Your task to perform on an android device: Go to battery settings Image 0: 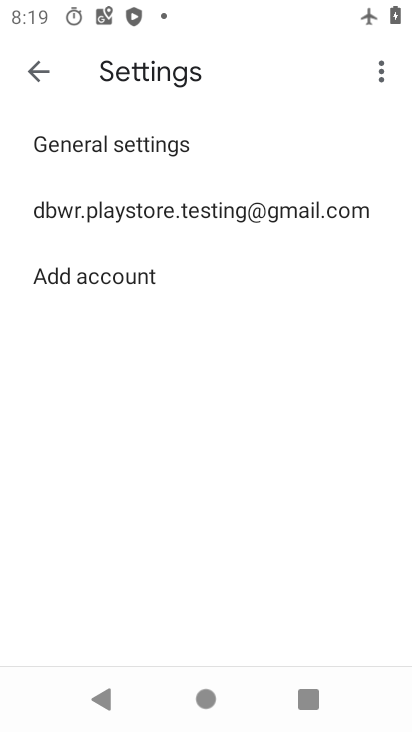
Step 0: drag from (282, 696) to (206, 222)
Your task to perform on an android device: Go to battery settings Image 1: 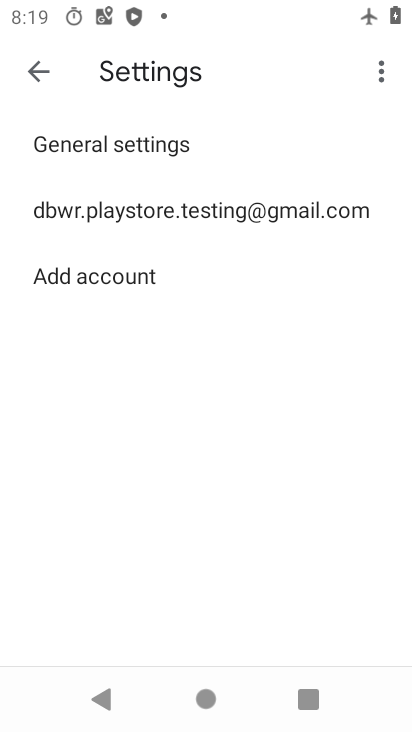
Step 1: press home button
Your task to perform on an android device: Go to battery settings Image 2: 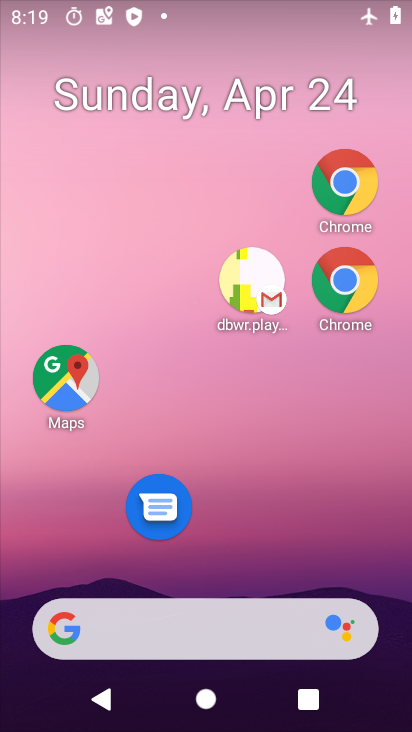
Step 2: drag from (247, 689) to (202, 118)
Your task to perform on an android device: Go to battery settings Image 3: 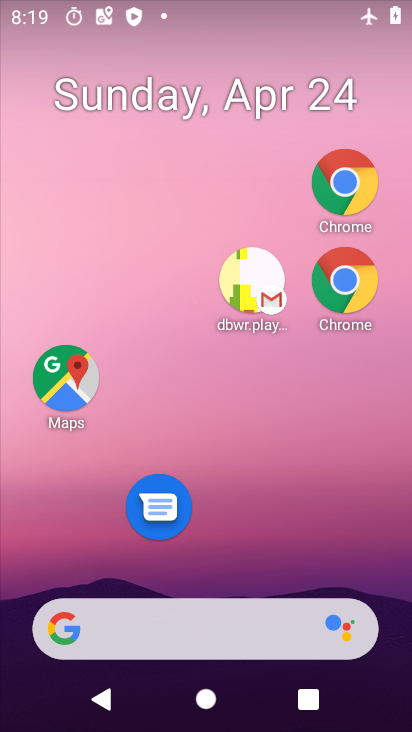
Step 3: drag from (258, 668) to (250, 89)
Your task to perform on an android device: Go to battery settings Image 4: 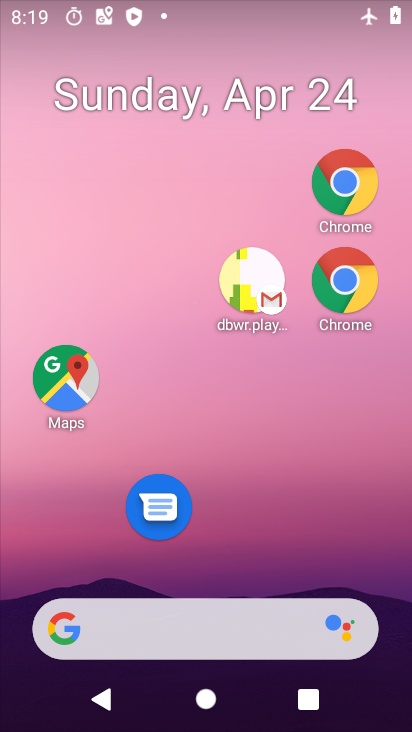
Step 4: drag from (251, 652) to (229, 140)
Your task to perform on an android device: Go to battery settings Image 5: 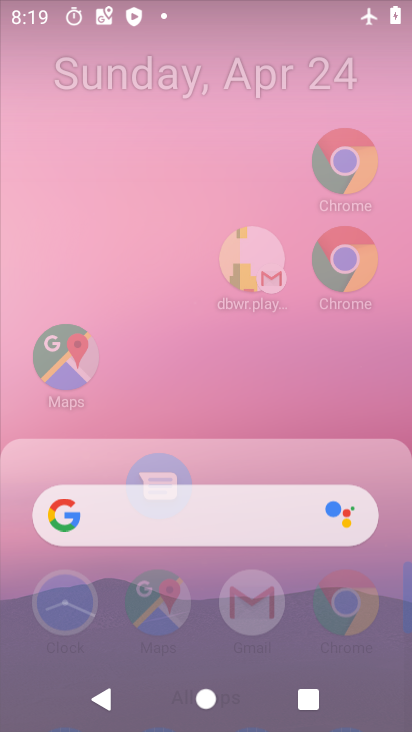
Step 5: drag from (186, 154) to (186, 41)
Your task to perform on an android device: Go to battery settings Image 6: 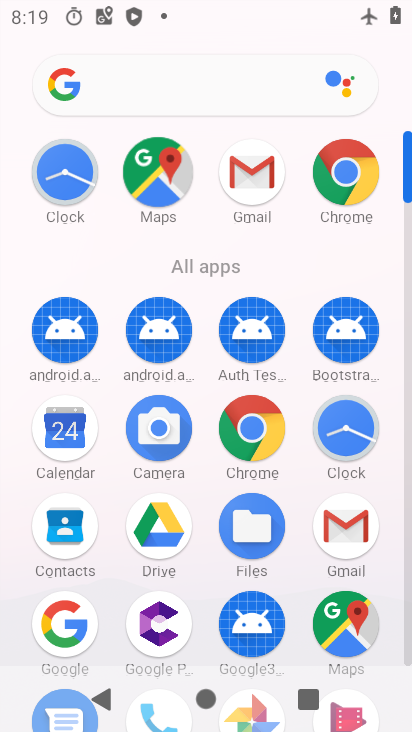
Step 6: drag from (187, 489) to (172, 79)
Your task to perform on an android device: Go to battery settings Image 7: 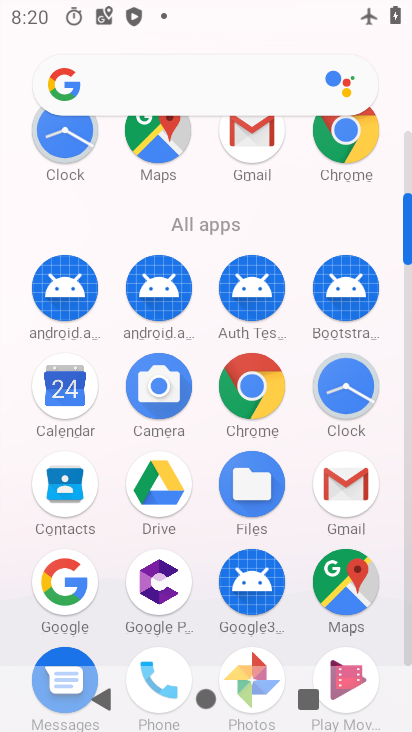
Step 7: drag from (208, 561) to (216, 105)
Your task to perform on an android device: Go to battery settings Image 8: 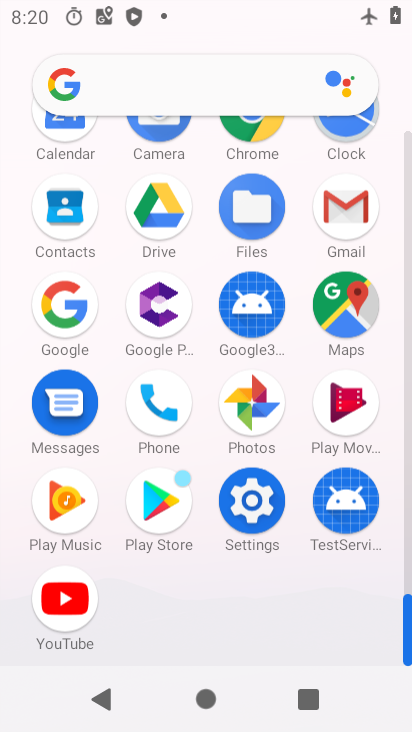
Step 8: drag from (133, 500) to (154, 79)
Your task to perform on an android device: Go to battery settings Image 9: 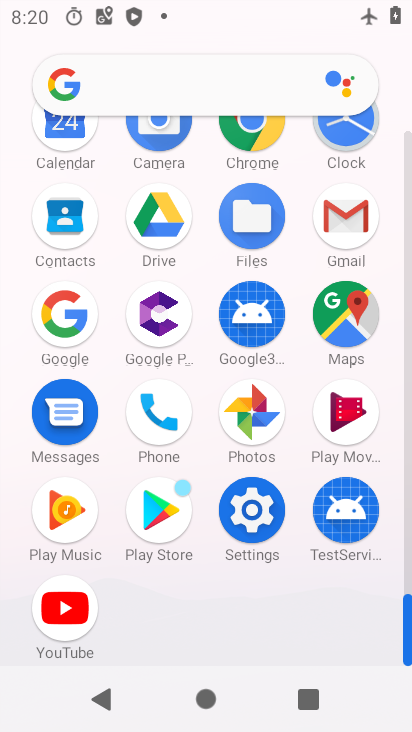
Step 9: click (262, 515)
Your task to perform on an android device: Go to battery settings Image 10: 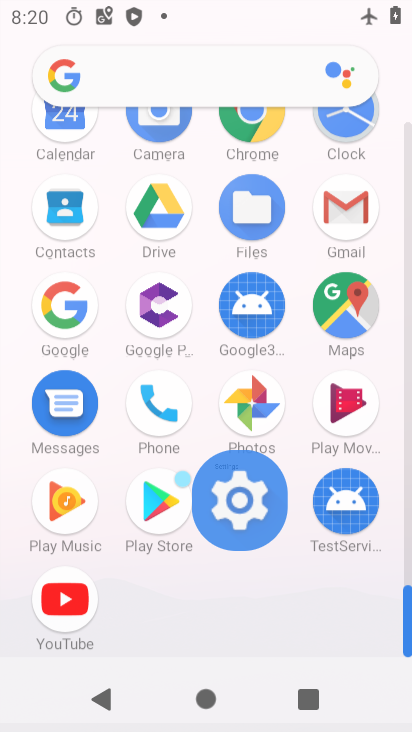
Step 10: click (262, 515)
Your task to perform on an android device: Go to battery settings Image 11: 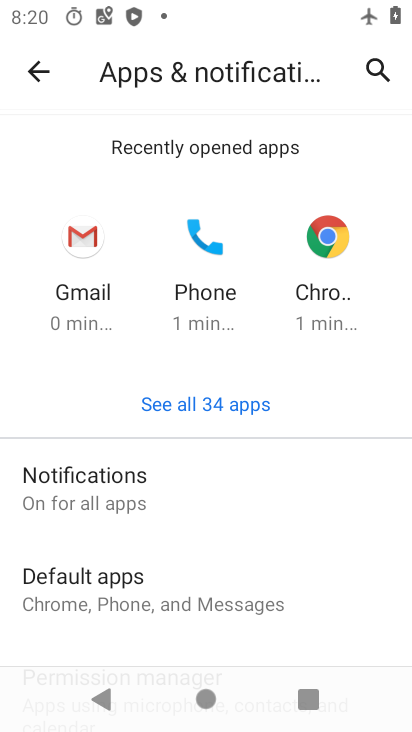
Step 11: drag from (182, 487) to (217, 218)
Your task to perform on an android device: Go to battery settings Image 12: 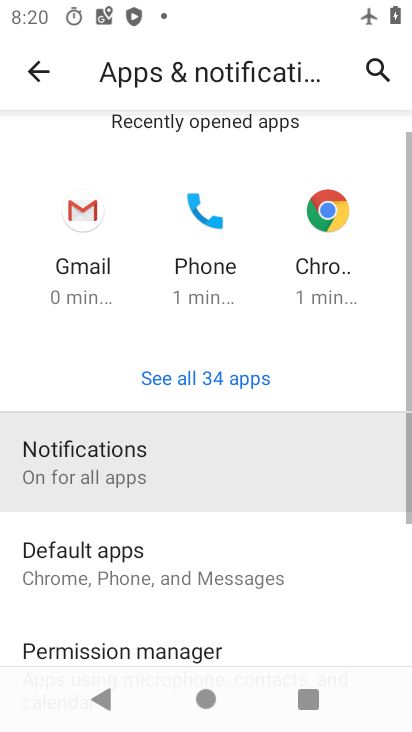
Step 12: drag from (158, 379) to (158, 171)
Your task to perform on an android device: Go to battery settings Image 13: 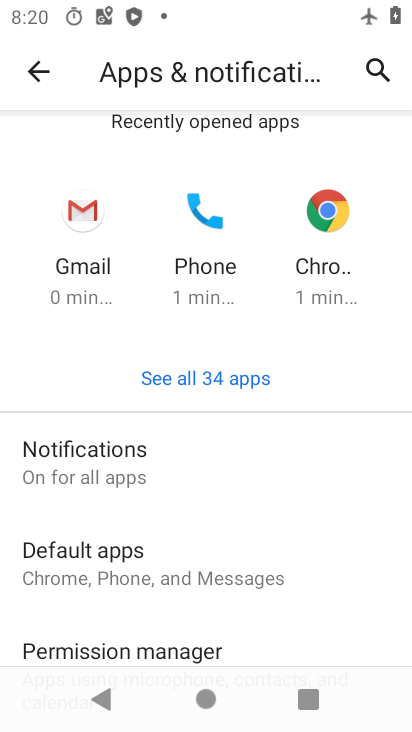
Step 13: drag from (180, 528) to (154, 191)
Your task to perform on an android device: Go to battery settings Image 14: 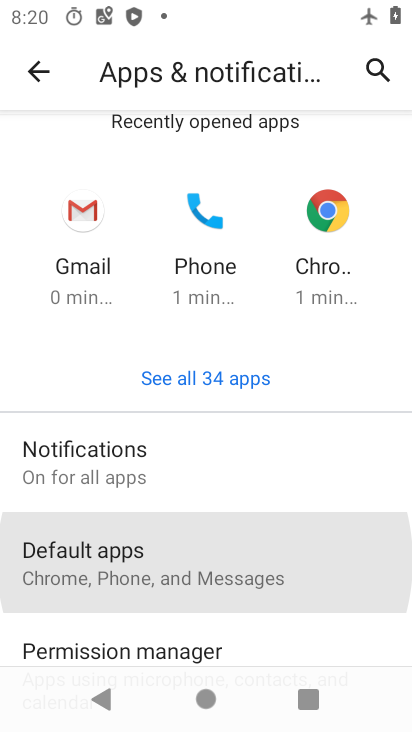
Step 14: drag from (174, 393) to (141, 86)
Your task to perform on an android device: Go to battery settings Image 15: 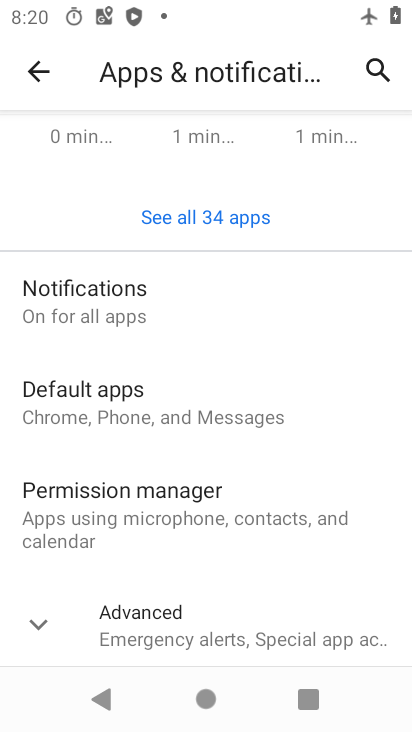
Step 15: click (46, 66)
Your task to perform on an android device: Go to battery settings Image 16: 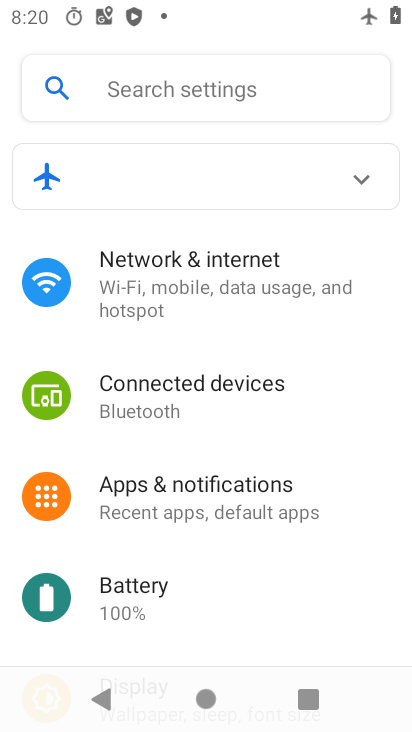
Step 16: drag from (185, 528) to (153, 235)
Your task to perform on an android device: Go to battery settings Image 17: 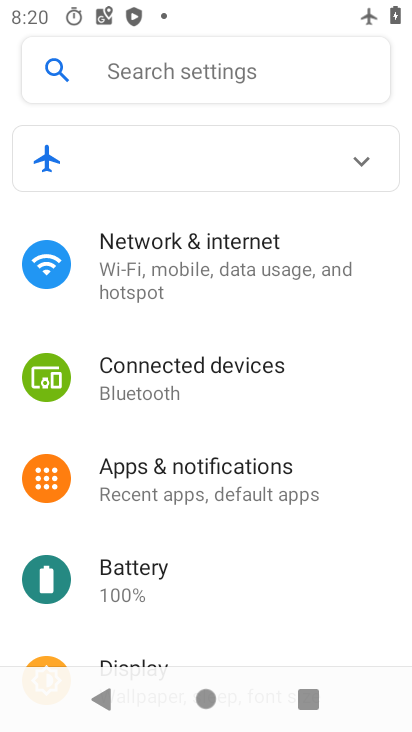
Step 17: click (134, 574)
Your task to perform on an android device: Go to battery settings Image 18: 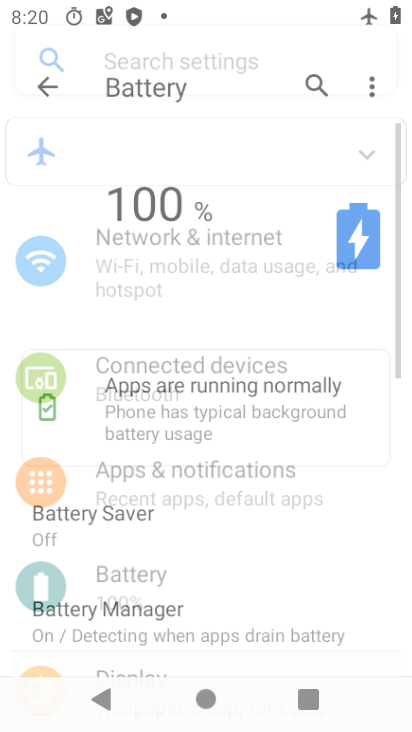
Step 18: click (137, 571)
Your task to perform on an android device: Go to battery settings Image 19: 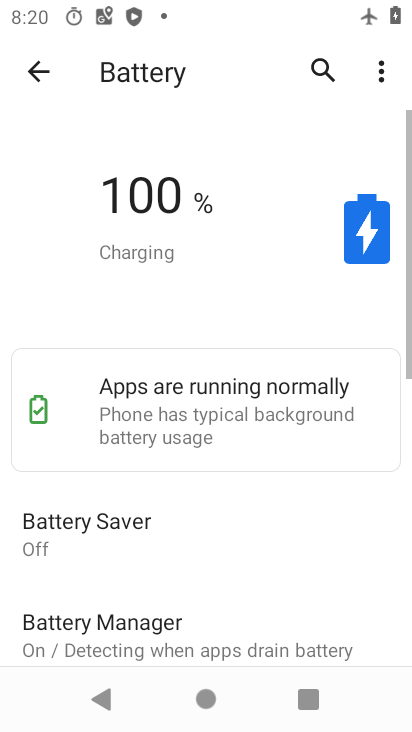
Step 19: click (137, 571)
Your task to perform on an android device: Go to battery settings Image 20: 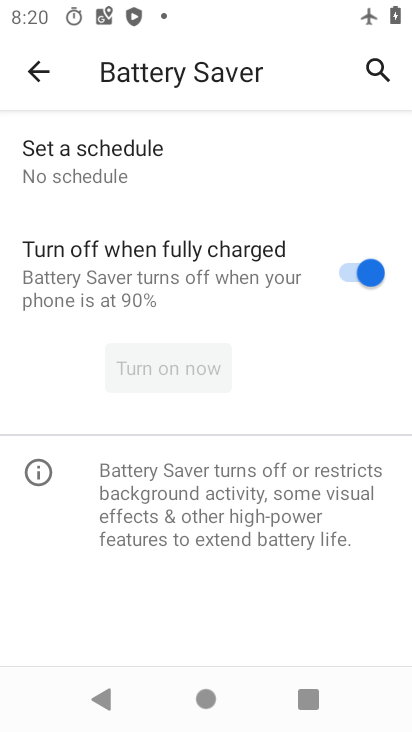
Step 20: task complete